Your task to perform on an android device: open app "eBay: The shopping marketplace" (install if not already installed) Image 0: 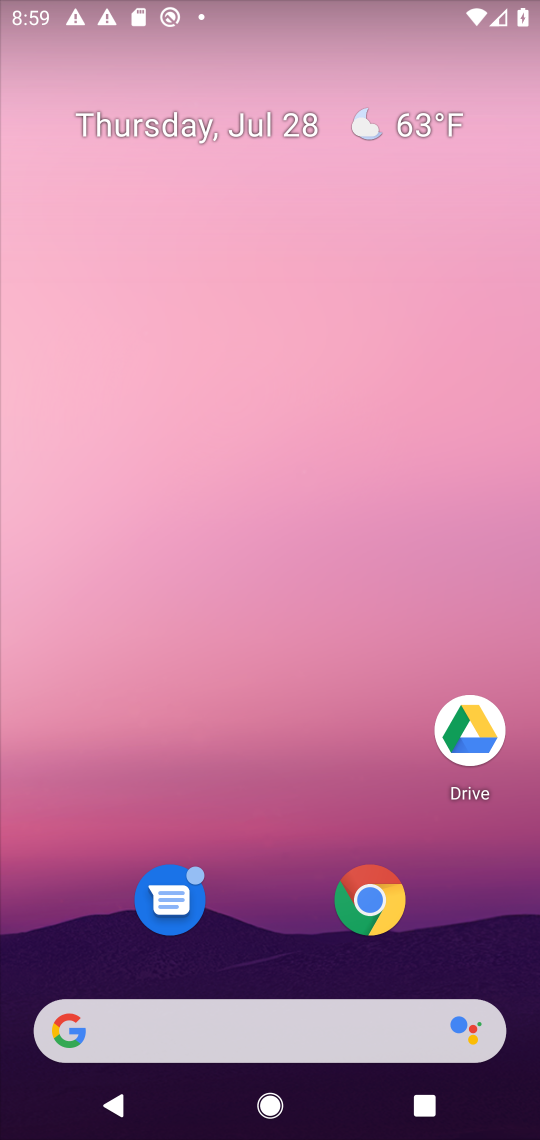
Step 0: drag from (271, 748) to (314, 110)
Your task to perform on an android device: open app "eBay: The shopping marketplace" (install if not already installed) Image 1: 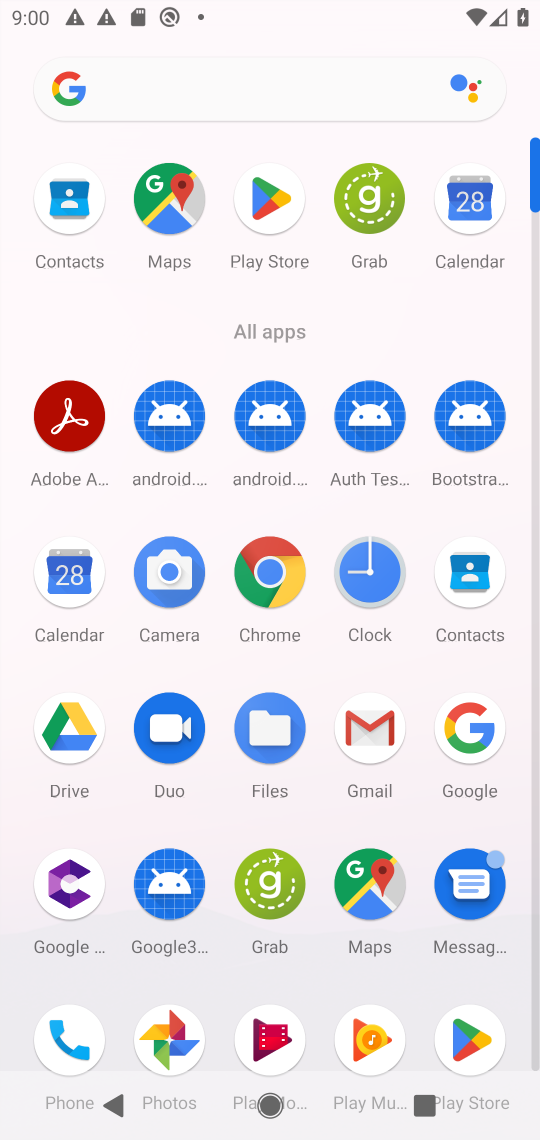
Step 1: drag from (354, 810) to (360, 442)
Your task to perform on an android device: open app "eBay: The shopping marketplace" (install if not already installed) Image 2: 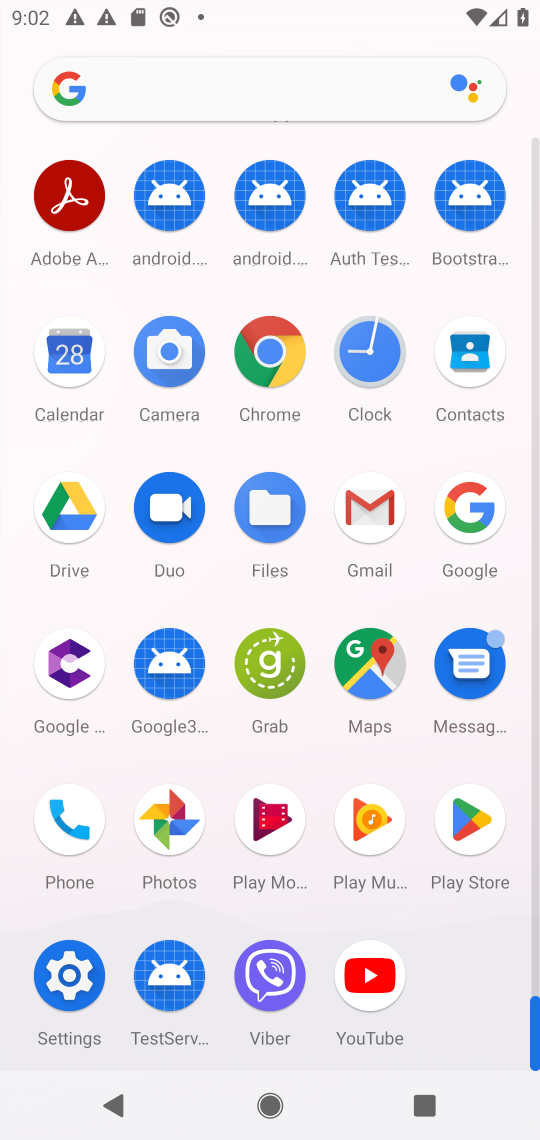
Step 2: click (468, 834)
Your task to perform on an android device: open app "eBay: The shopping marketplace" (install if not already installed) Image 3: 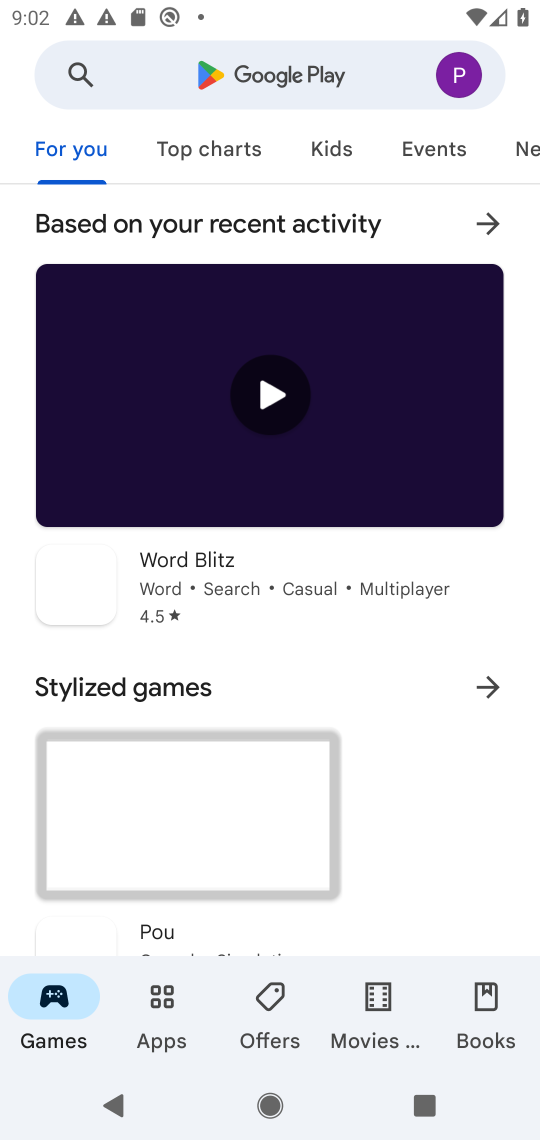
Step 3: click (96, 78)
Your task to perform on an android device: open app "eBay: The shopping marketplace" (install if not already installed) Image 4: 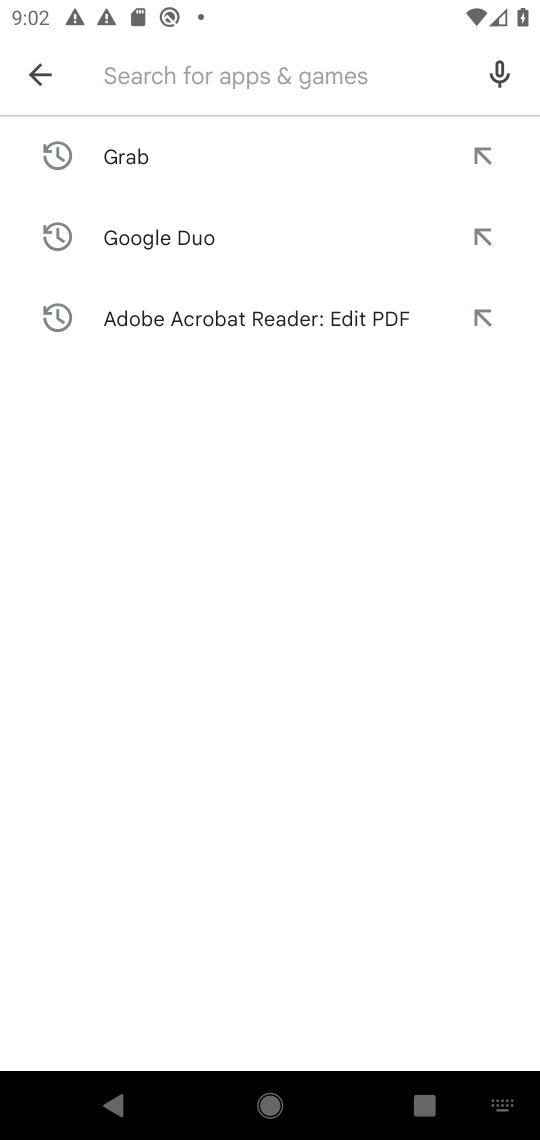
Step 4: type "eBay"
Your task to perform on an android device: open app "eBay: The shopping marketplace" (install if not already installed) Image 5: 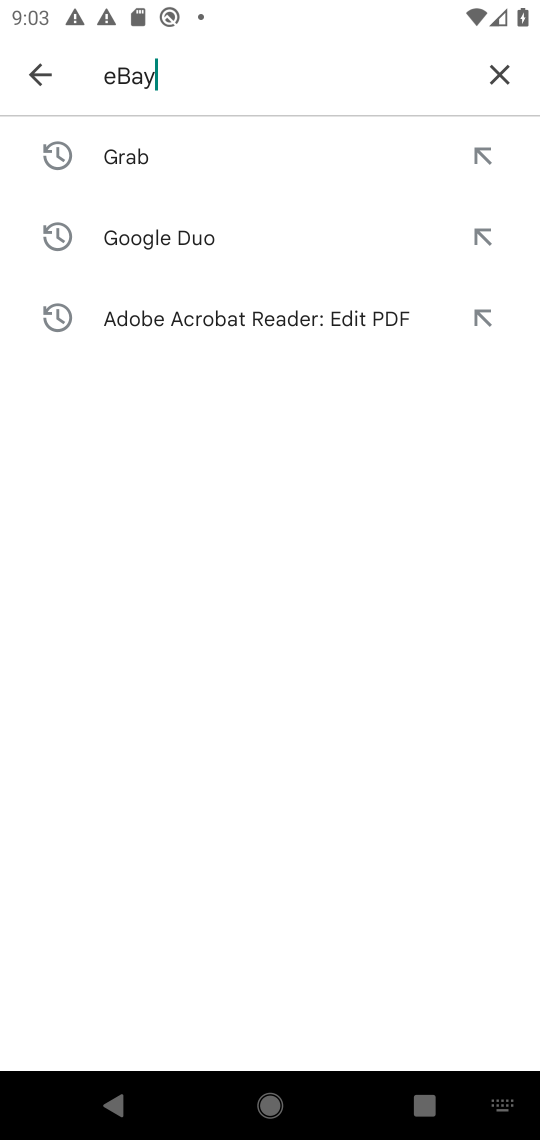
Step 5: type ""
Your task to perform on an android device: open app "eBay: The shopping marketplace" (install if not already installed) Image 6: 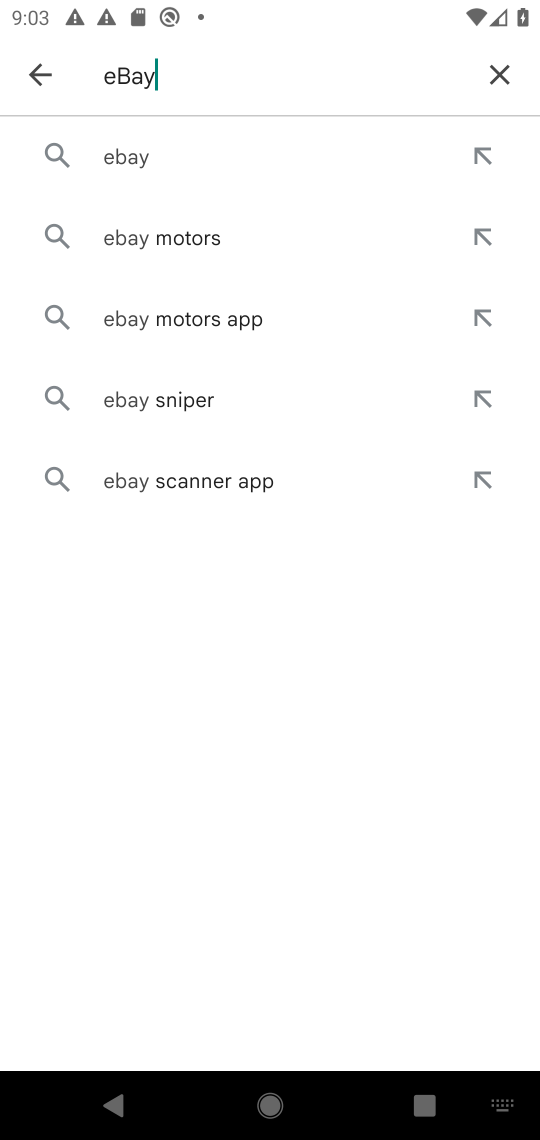
Step 6: press enter
Your task to perform on an android device: open app "eBay: The shopping marketplace" (install if not already installed) Image 7: 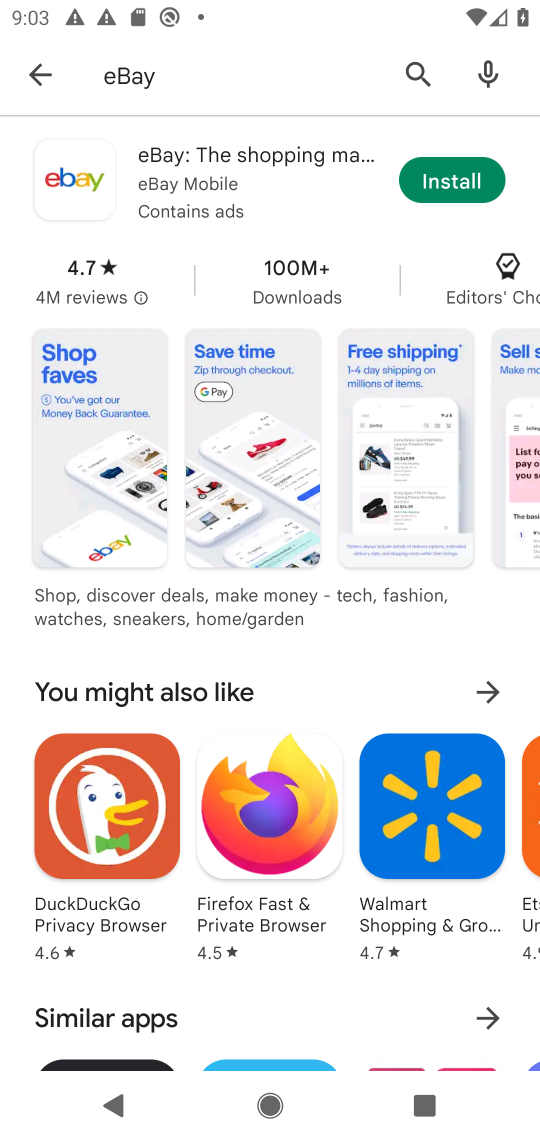
Step 7: click (455, 184)
Your task to perform on an android device: open app "eBay: The shopping marketplace" (install if not already installed) Image 8: 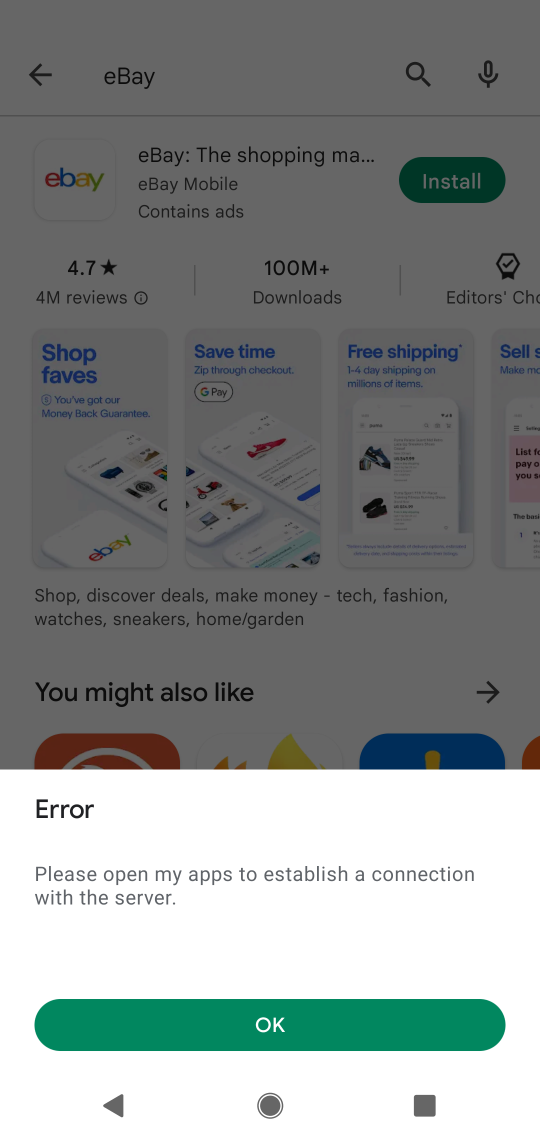
Step 8: click (294, 1029)
Your task to perform on an android device: open app "eBay: The shopping marketplace" (install if not already installed) Image 9: 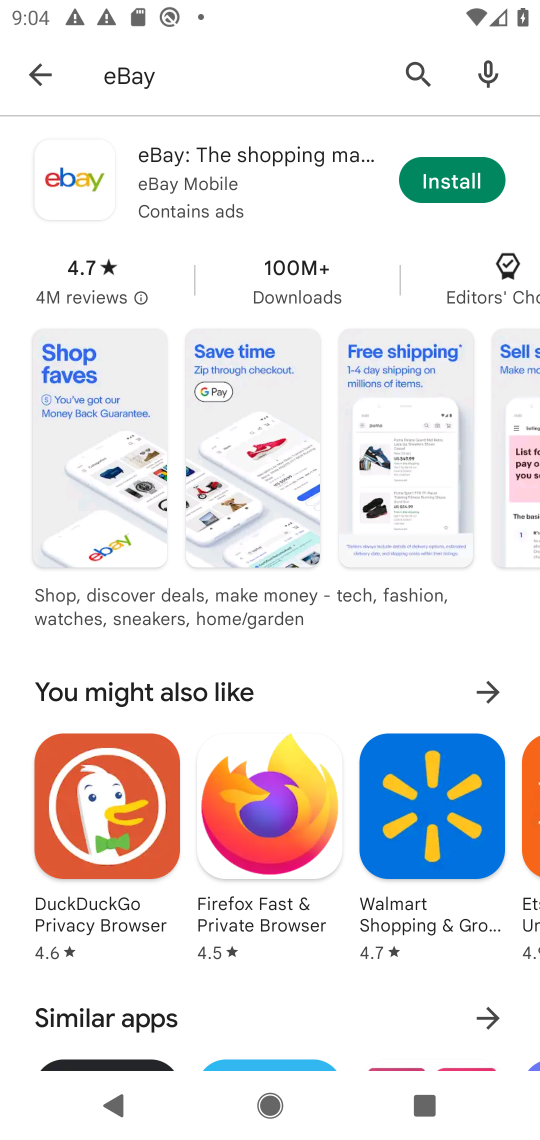
Step 9: task complete